Your task to perform on an android device: When is my next appointment? Image 0: 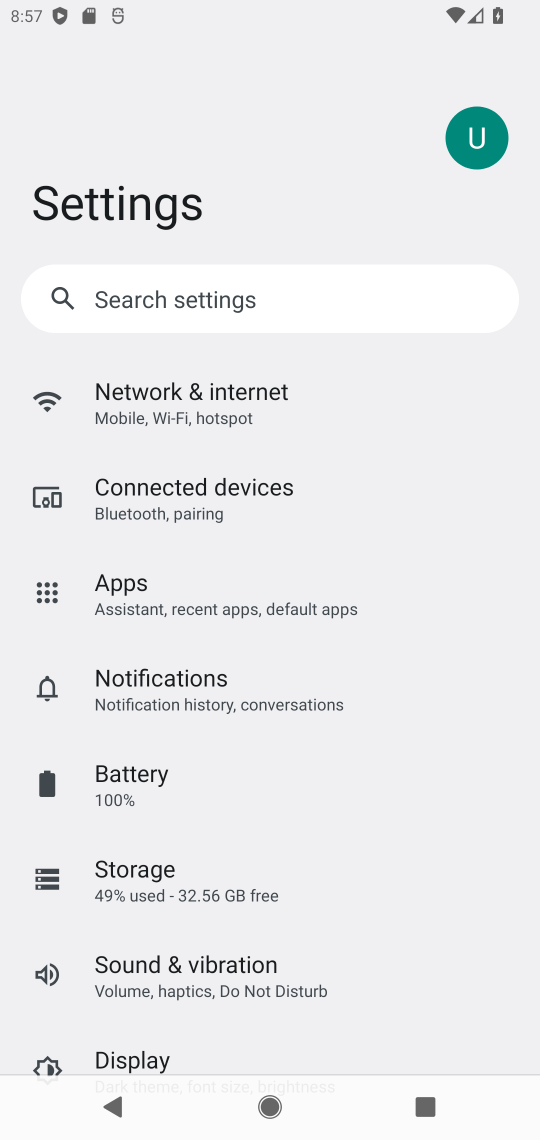
Step 0: press home button
Your task to perform on an android device: When is my next appointment? Image 1: 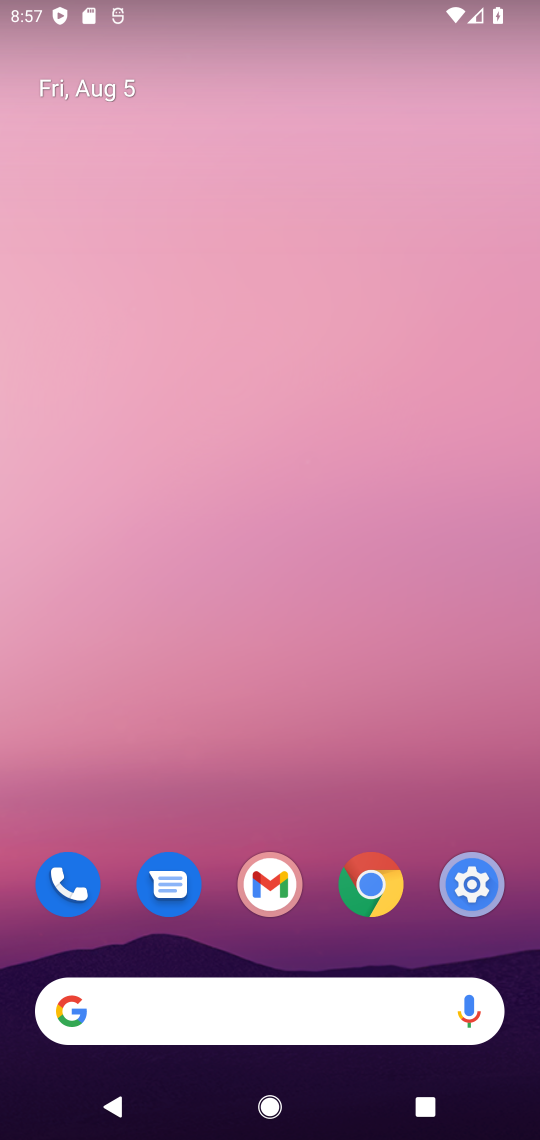
Step 1: drag from (284, 393) to (386, 0)
Your task to perform on an android device: When is my next appointment? Image 2: 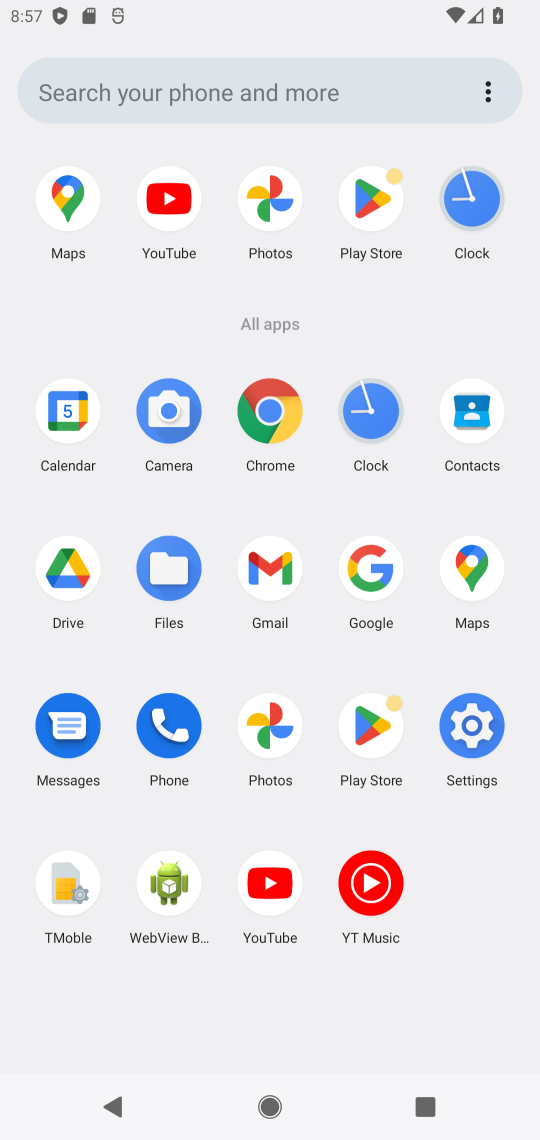
Step 2: drag from (283, 764) to (274, 362)
Your task to perform on an android device: When is my next appointment? Image 3: 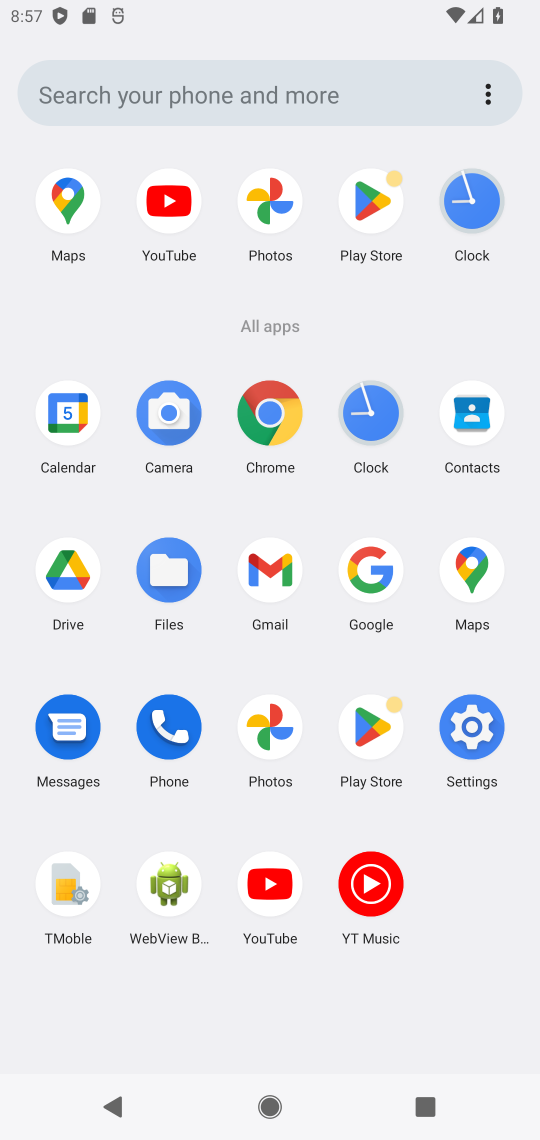
Step 3: click (66, 433)
Your task to perform on an android device: When is my next appointment? Image 4: 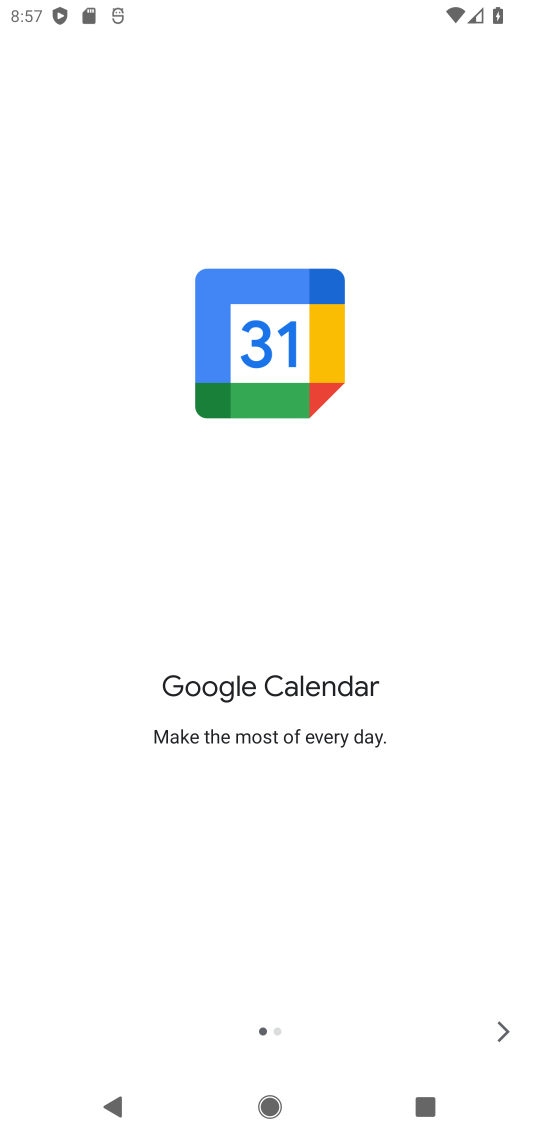
Step 4: click (507, 1027)
Your task to perform on an android device: When is my next appointment? Image 5: 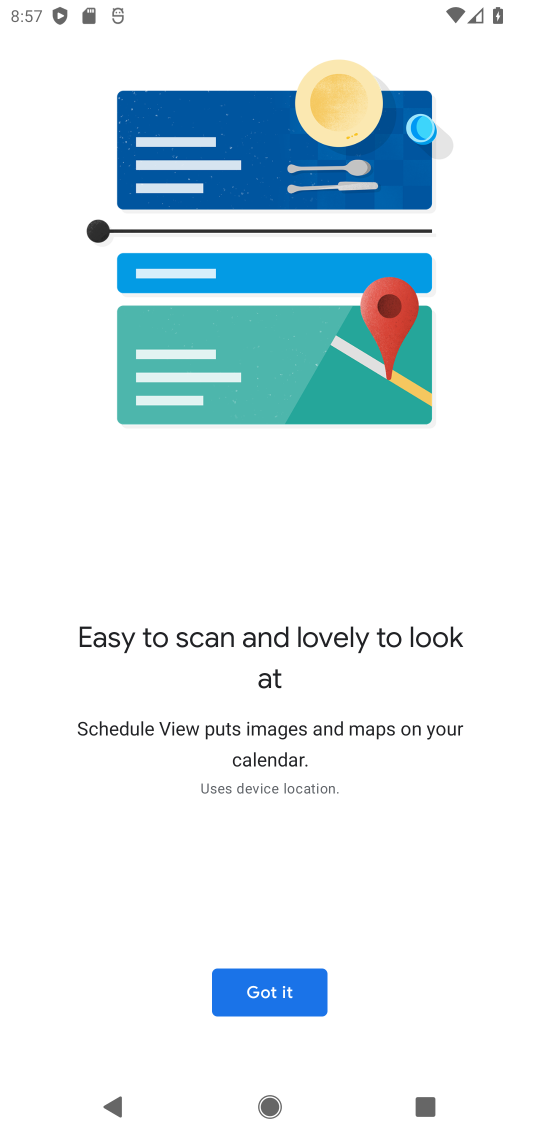
Step 5: click (258, 993)
Your task to perform on an android device: When is my next appointment? Image 6: 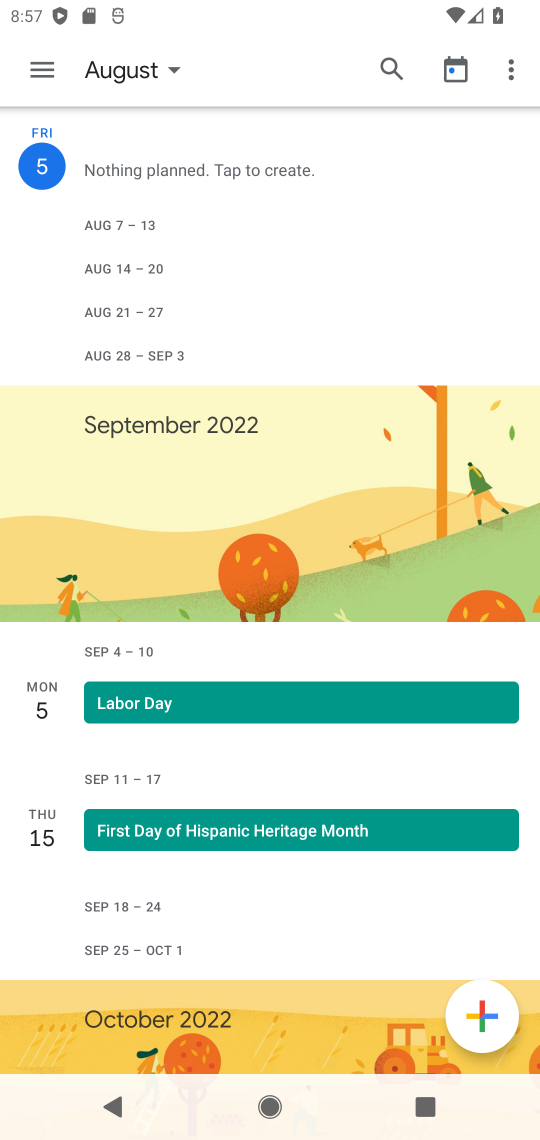
Step 6: task complete